Your task to perform on an android device: Is it going to rain tomorrow? Image 0: 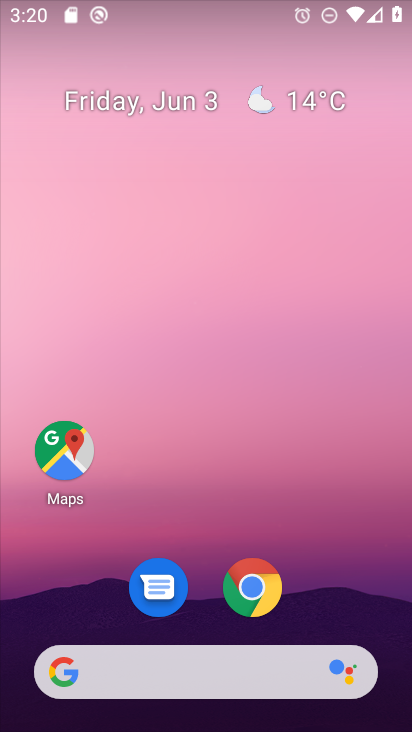
Step 0: drag from (247, 724) to (252, 91)
Your task to perform on an android device: Is it going to rain tomorrow? Image 1: 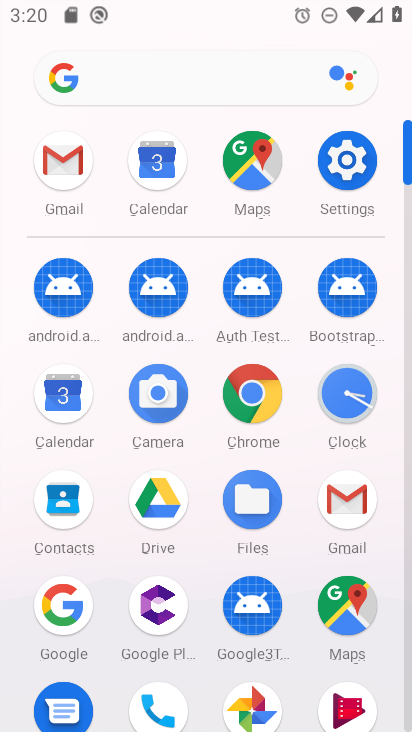
Step 1: click (61, 605)
Your task to perform on an android device: Is it going to rain tomorrow? Image 2: 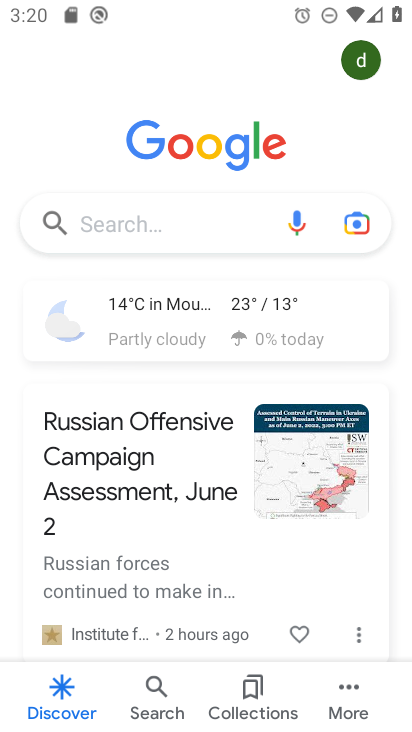
Step 2: click (182, 222)
Your task to perform on an android device: Is it going to rain tomorrow? Image 3: 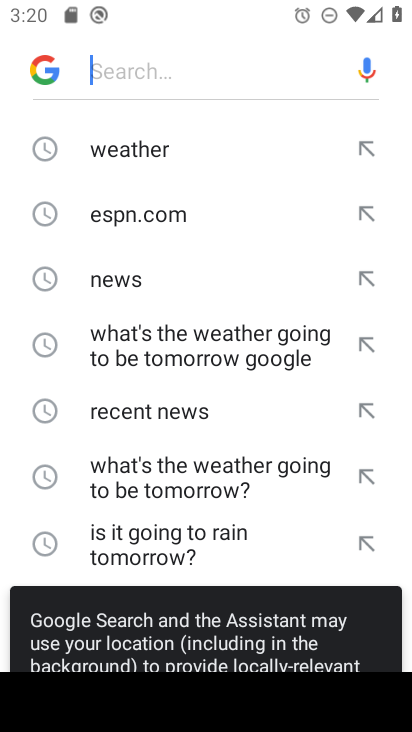
Step 3: click (126, 150)
Your task to perform on an android device: Is it going to rain tomorrow? Image 4: 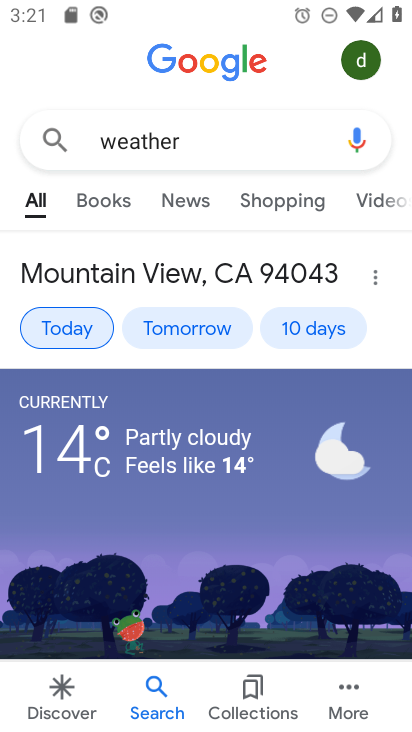
Step 4: click (182, 330)
Your task to perform on an android device: Is it going to rain tomorrow? Image 5: 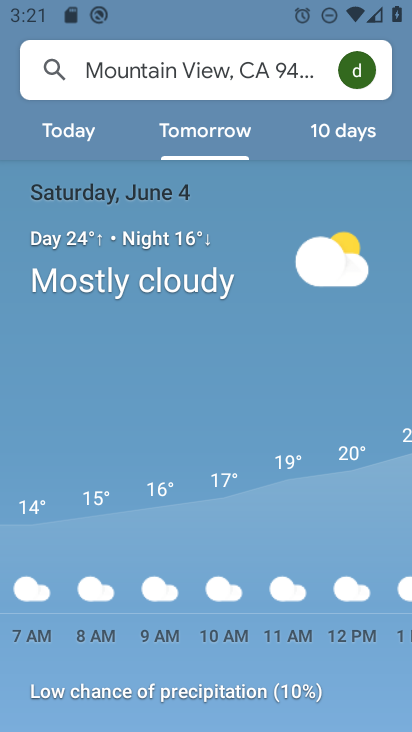
Step 5: task complete